Your task to perform on an android device: uninstall "DoorDash - Food Delivery" Image 0: 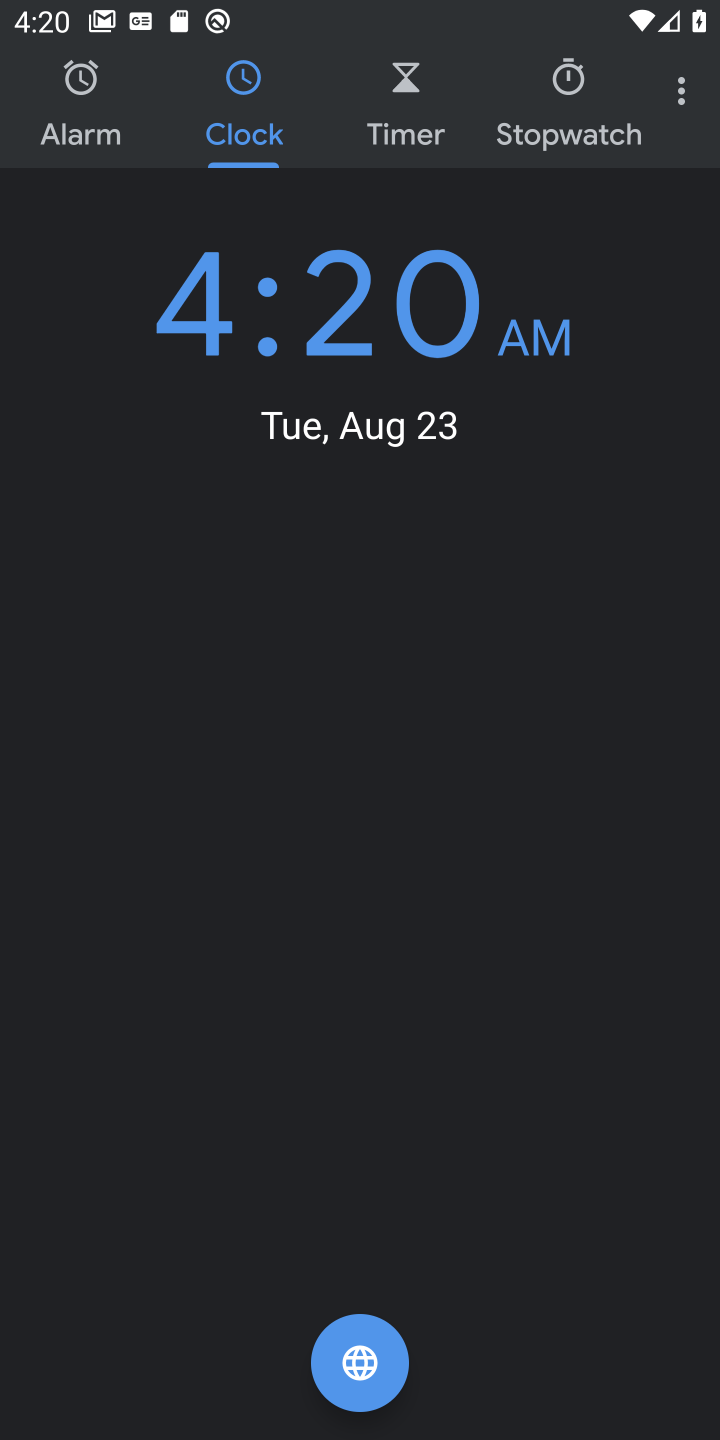
Step 0: press home button
Your task to perform on an android device: uninstall "DoorDash - Food Delivery" Image 1: 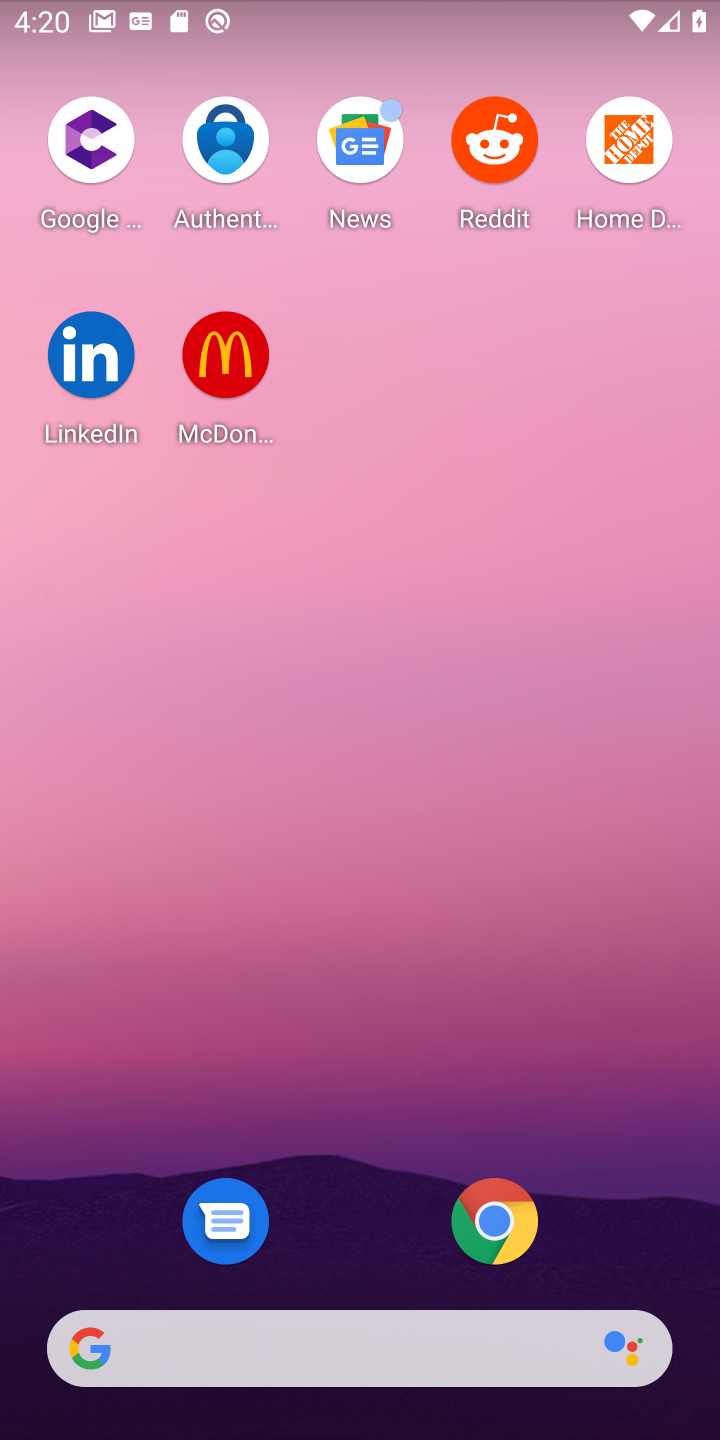
Step 1: click (351, 74)
Your task to perform on an android device: uninstall "DoorDash - Food Delivery" Image 2: 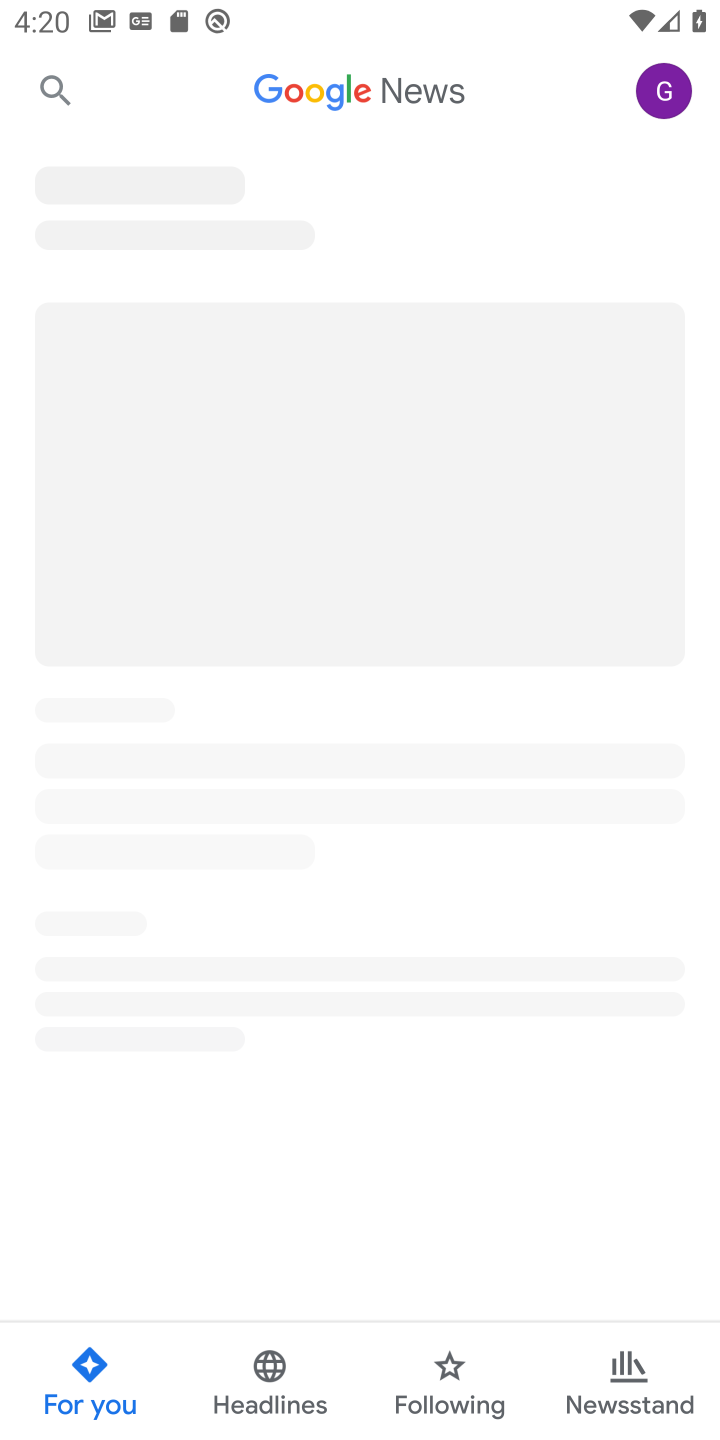
Step 2: press home button
Your task to perform on an android device: uninstall "DoorDash - Food Delivery" Image 3: 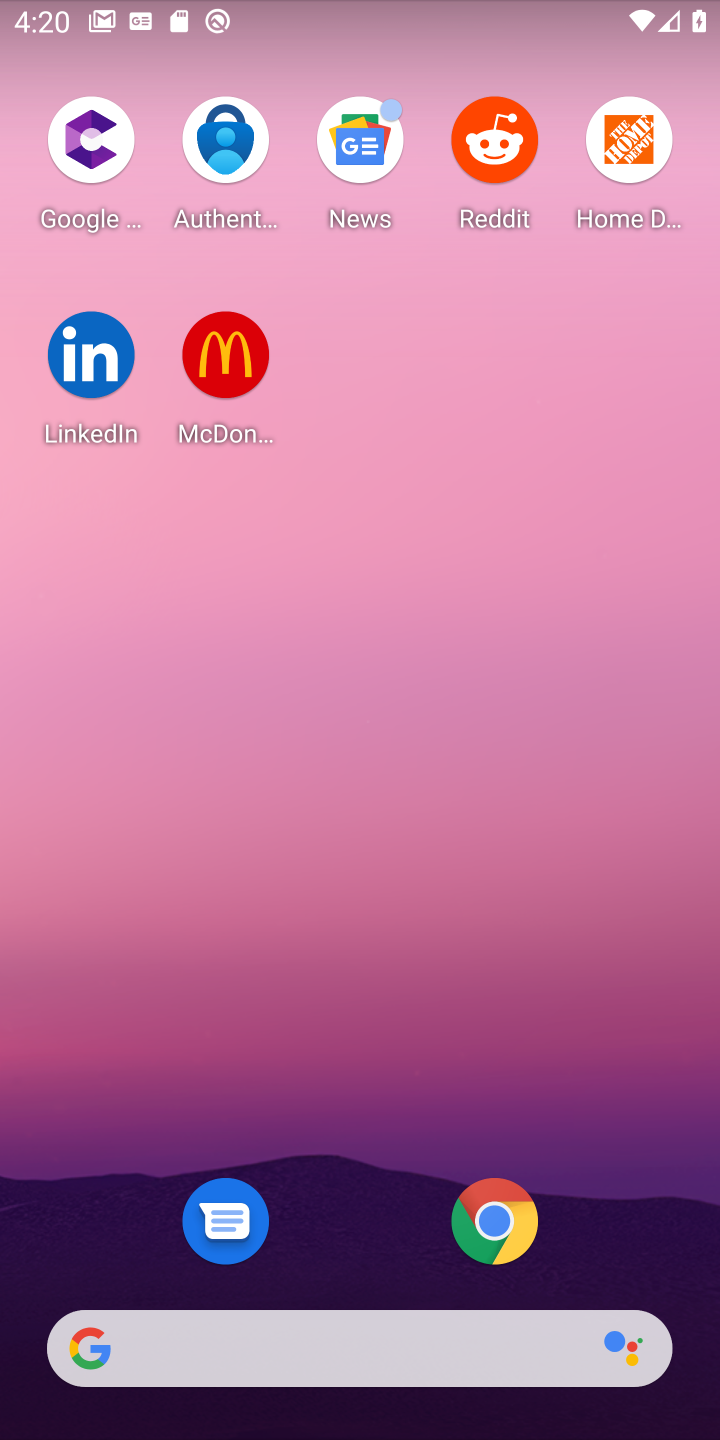
Step 3: drag from (310, 1097) to (396, 14)
Your task to perform on an android device: uninstall "DoorDash - Food Delivery" Image 4: 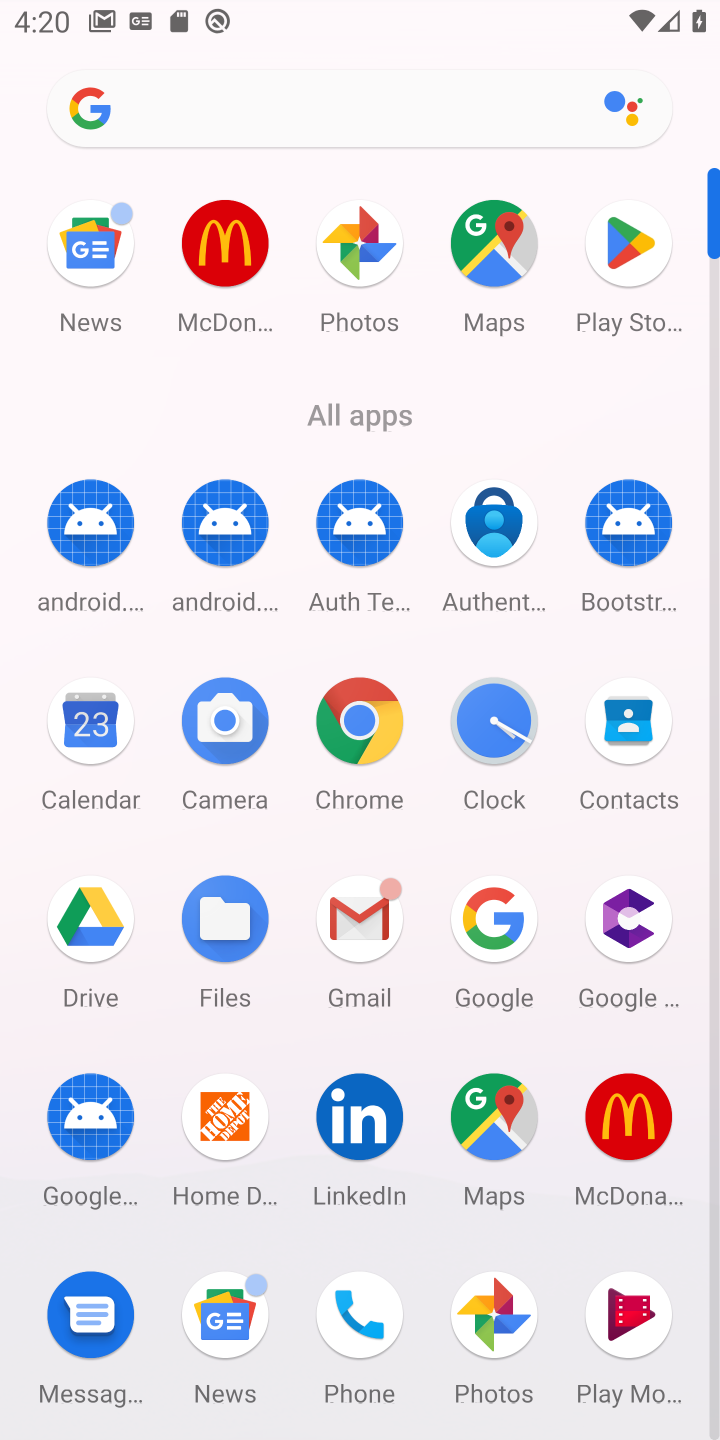
Step 4: click (627, 264)
Your task to perform on an android device: uninstall "DoorDash - Food Delivery" Image 5: 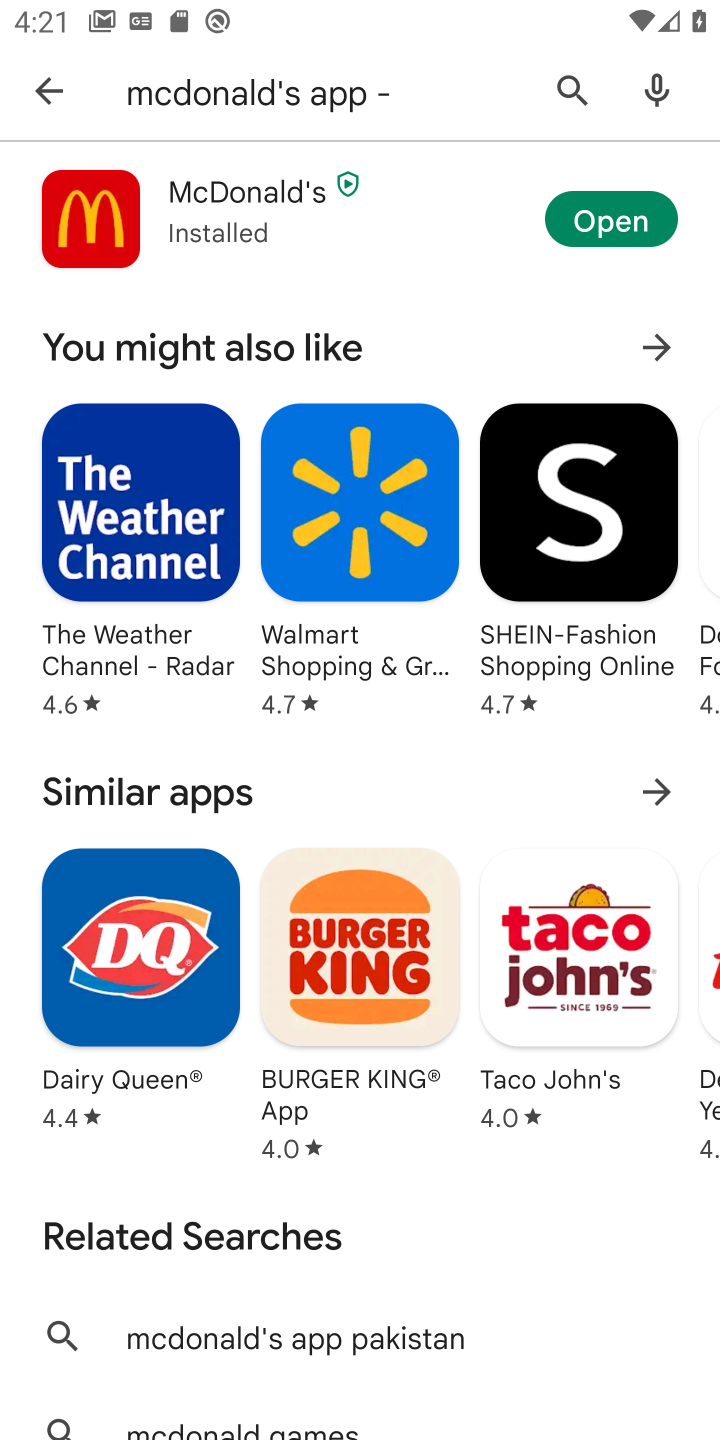
Step 5: click (47, 91)
Your task to perform on an android device: uninstall "DoorDash - Food Delivery" Image 6: 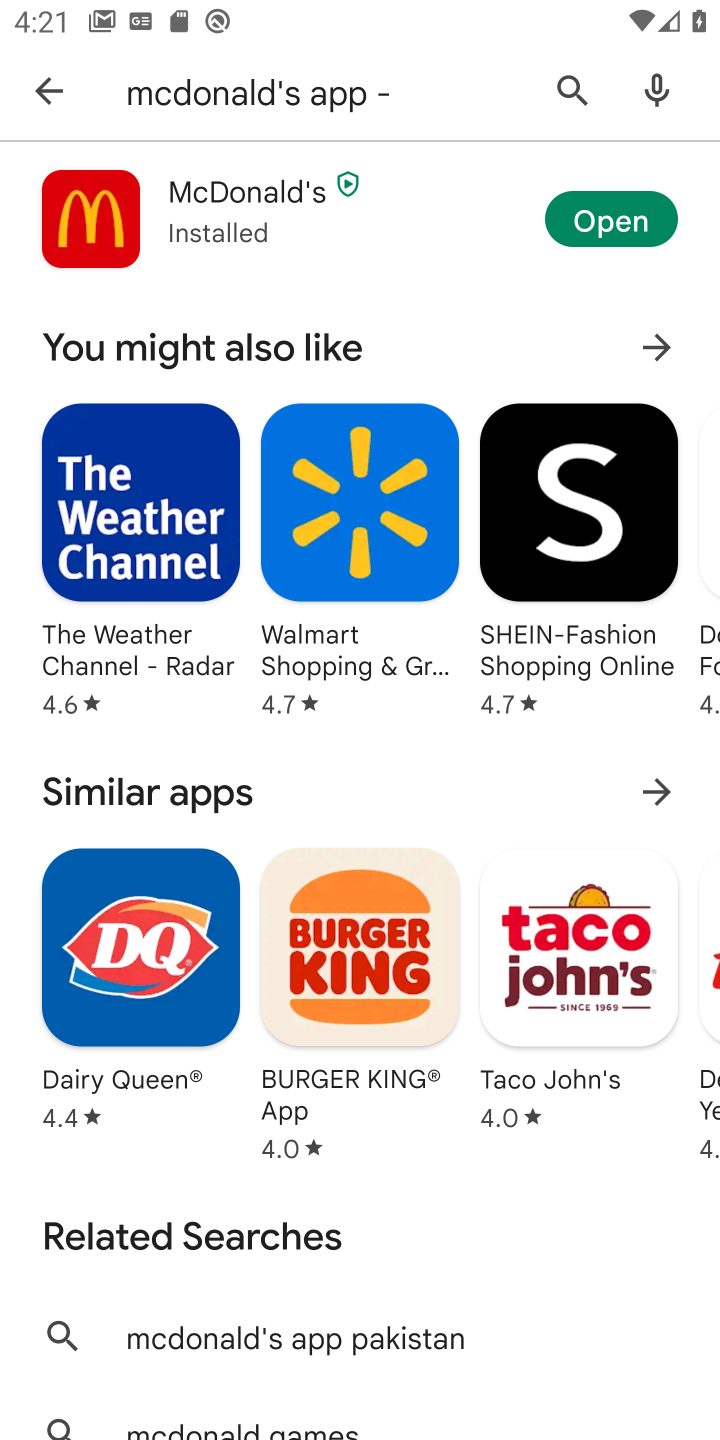
Step 6: click (53, 95)
Your task to perform on an android device: uninstall "DoorDash - Food Delivery" Image 7: 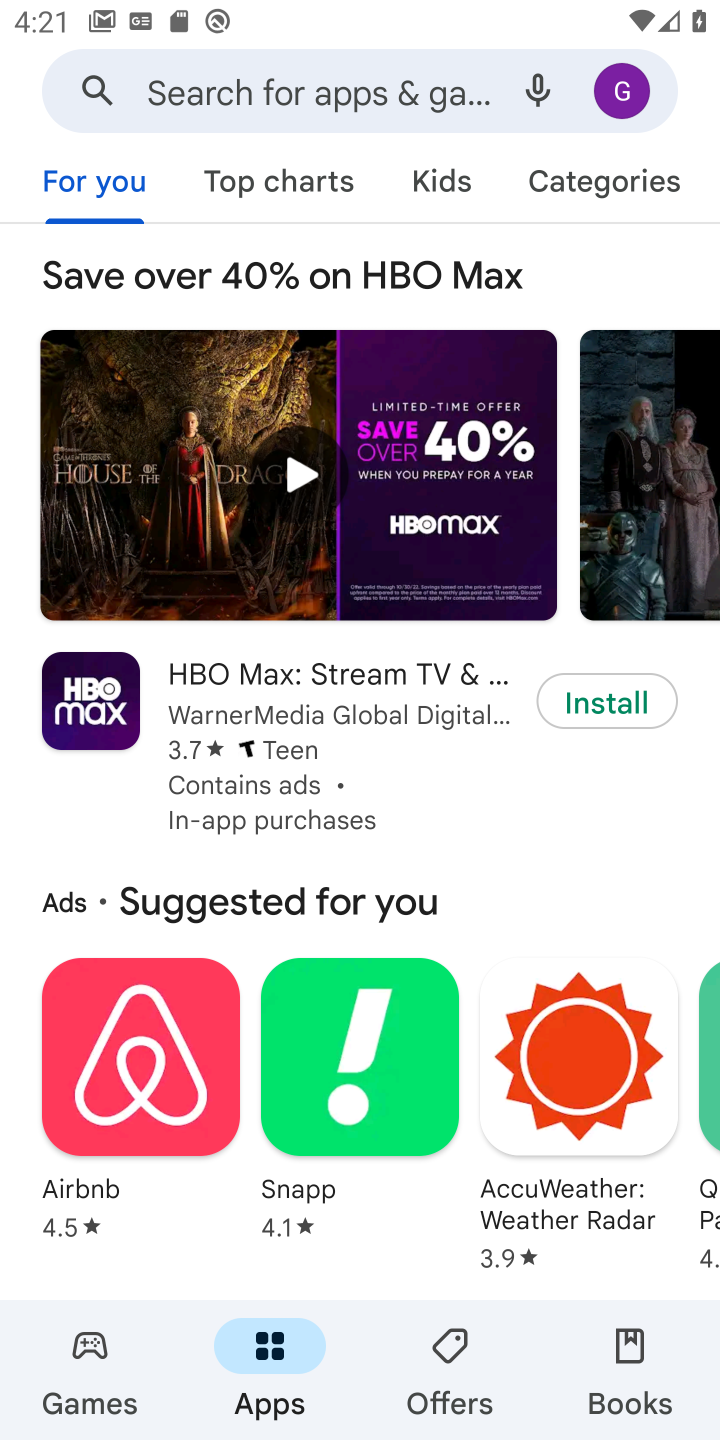
Step 7: click (282, 95)
Your task to perform on an android device: uninstall "DoorDash - Food Delivery" Image 8: 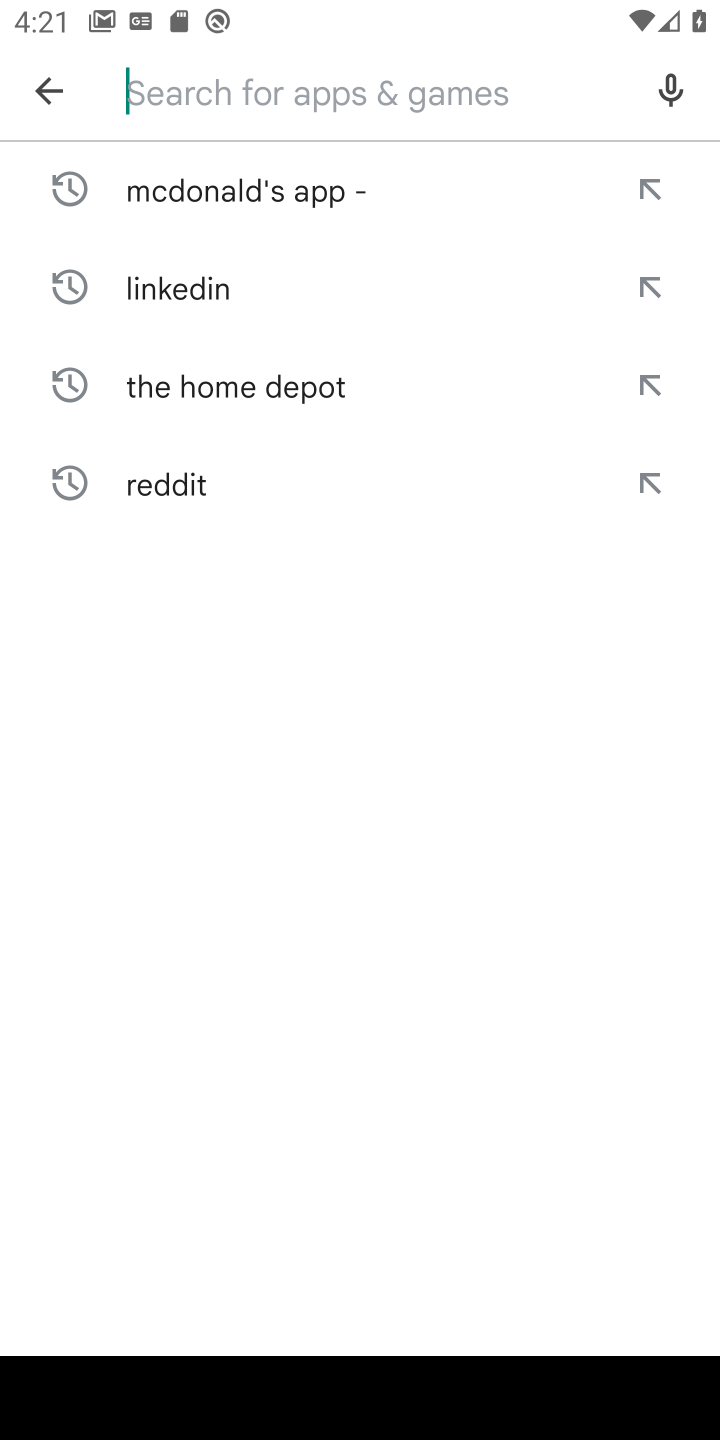
Step 8: type "DoorDash - Food Delivery"
Your task to perform on an android device: uninstall "DoorDash - Food Delivery" Image 9: 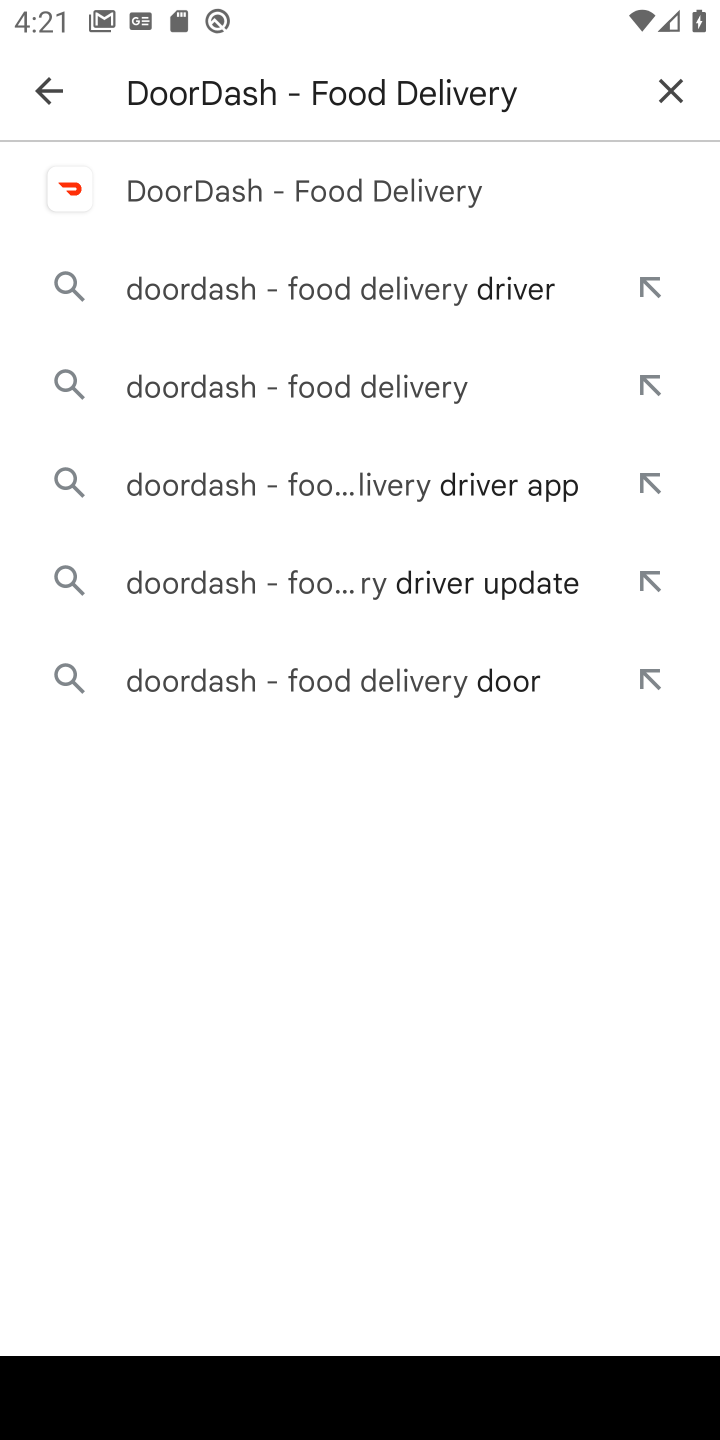
Step 9: click (235, 199)
Your task to perform on an android device: uninstall "DoorDash - Food Delivery" Image 10: 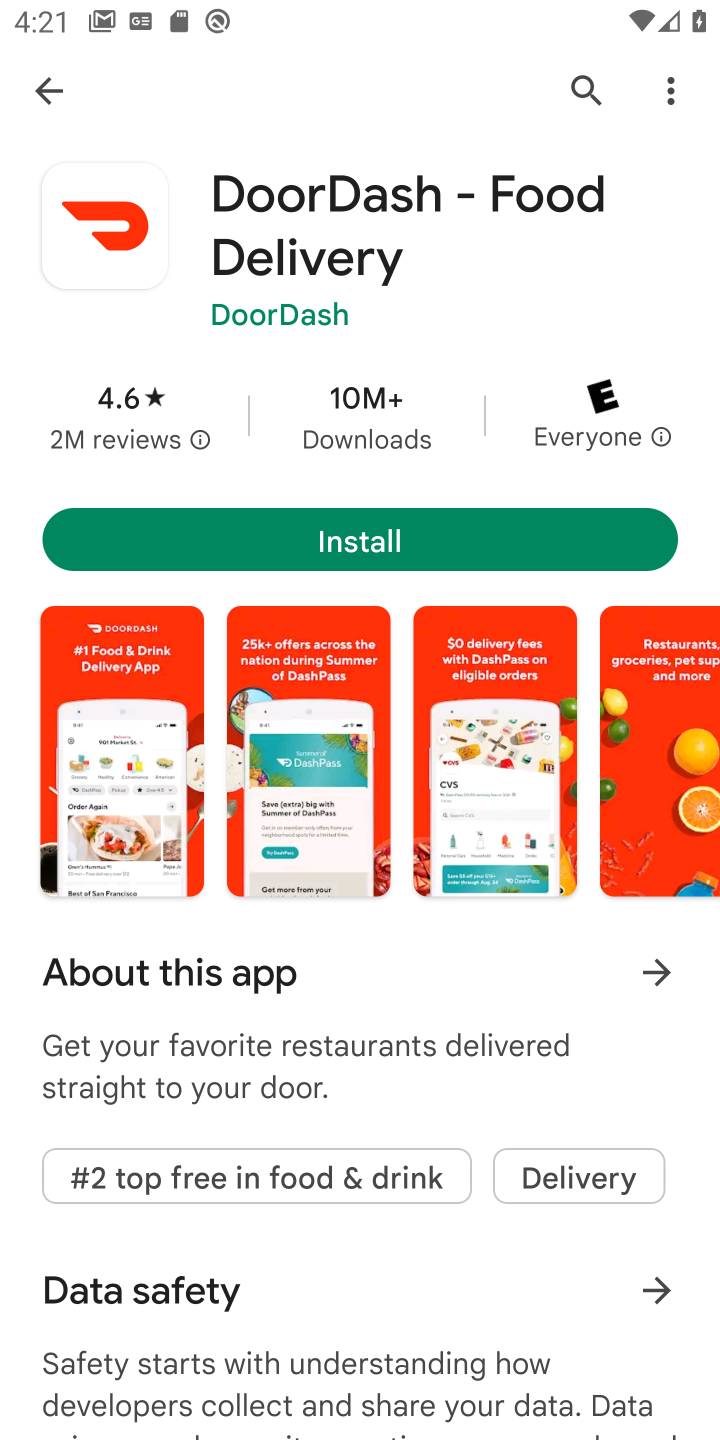
Step 10: task complete